Your task to perform on an android device: What's the weather? Image 0: 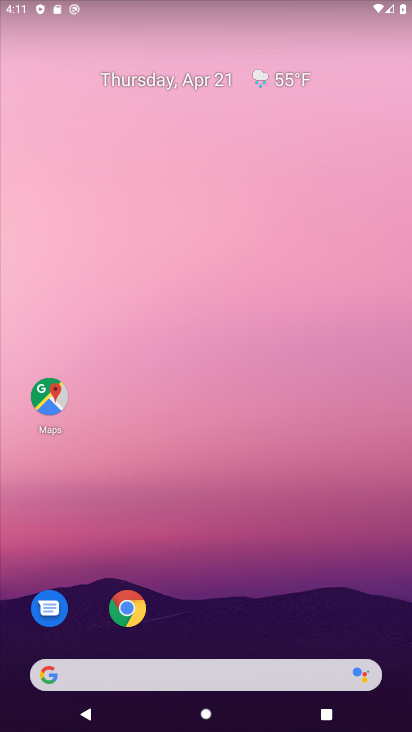
Step 0: click (127, 610)
Your task to perform on an android device: What's the weather? Image 1: 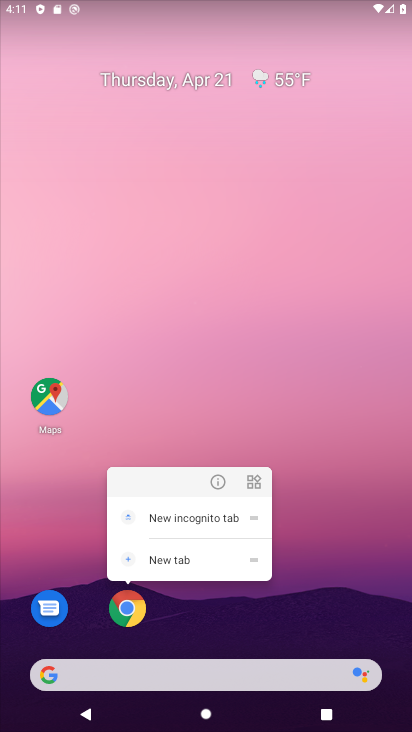
Step 1: click (129, 608)
Your task to perform on an android device: What's the weather? Image 2: 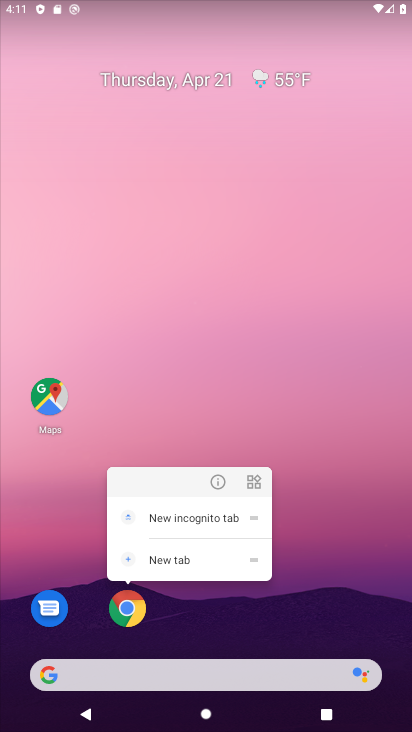
Step 2: click (130, 607)
Your task to perform on an android device: What's the weather? Image 3: 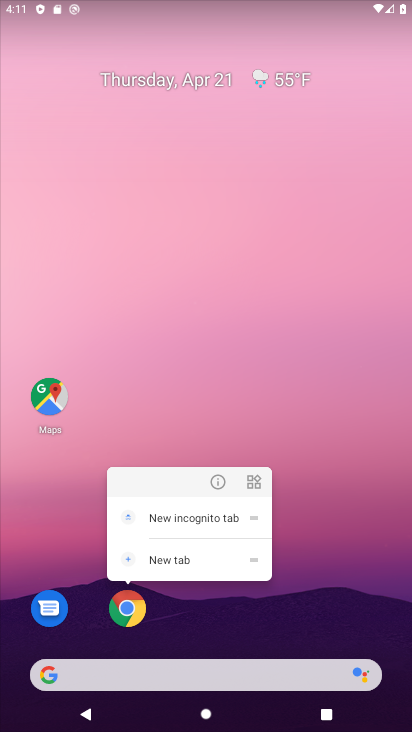
Step 3: click (130, 607)
Your task to perform on an android device: What's the weather? Image 4: 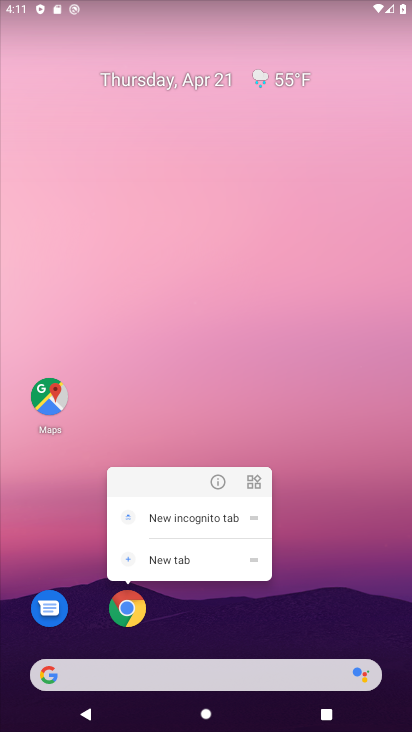
Step 4: click (130, 607)
Your task to perform on an android device: What's the weather? Image 5: 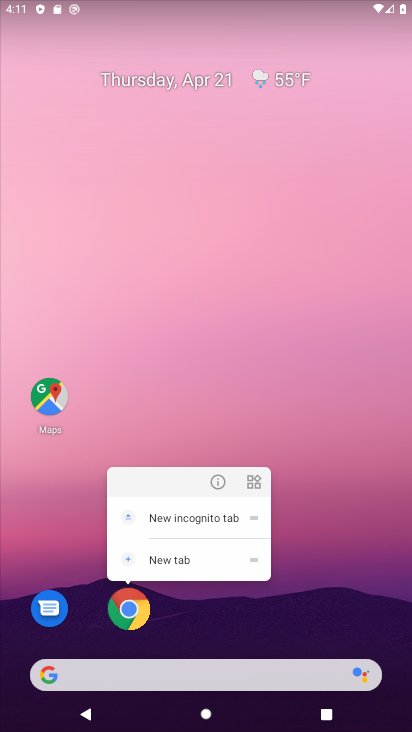
Step 5: click (149, 684)
Your task to perform on an android device: What's the weather? Image 6: 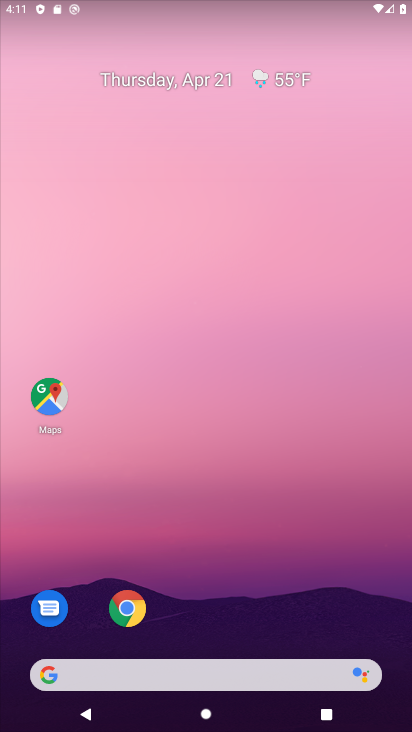
Step 6: click (133, 621)
Your task to perform on an android device: What's the weather? Image 7: 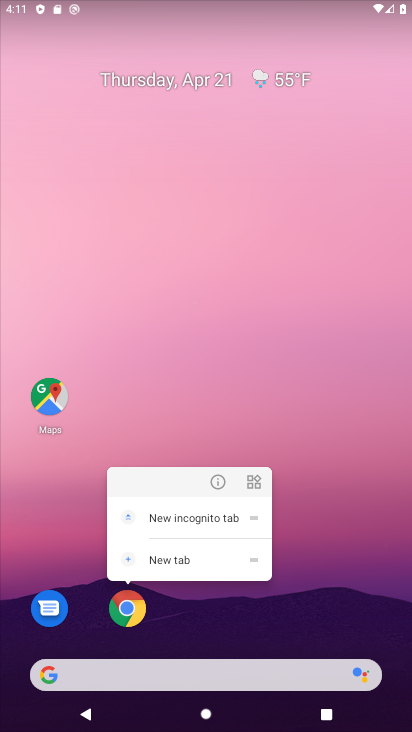
Step 7: click (132, 620)
Your task to perform on an android device: What's the weather? Image 8: 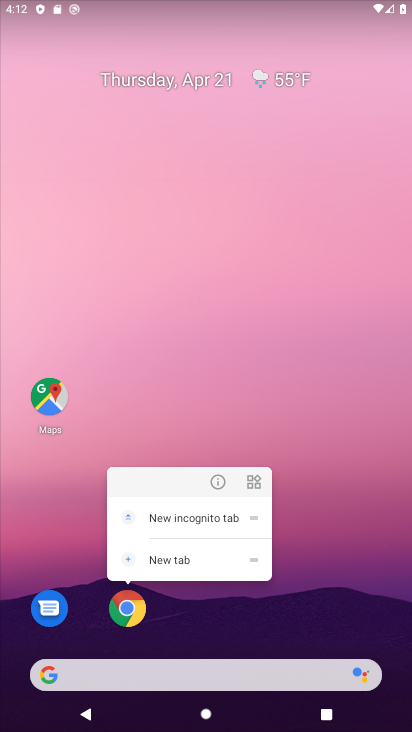
Step 8: click (196, 594)
Your task to perform on an android device: What's the weather? Image 9: 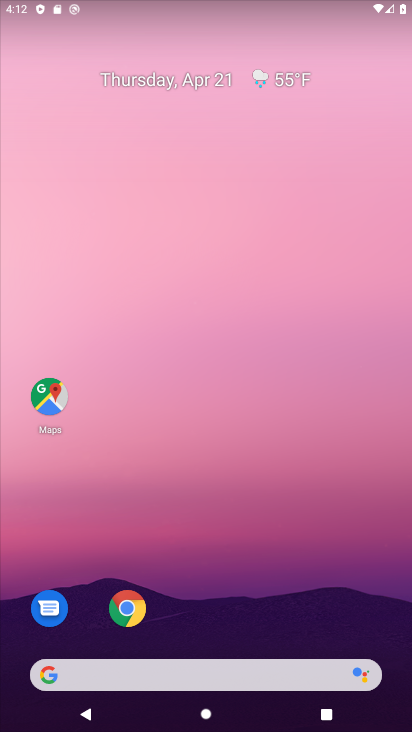
Step 9: click (129, 612)
Your task to perform on an android device: What's the weather? Image 10: 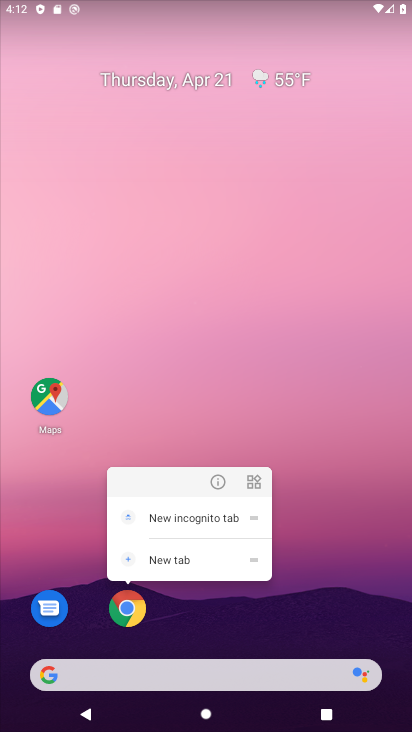
Step 10: click (130, 611)
Your task to perform on an android device: What's the weather? Image 11: 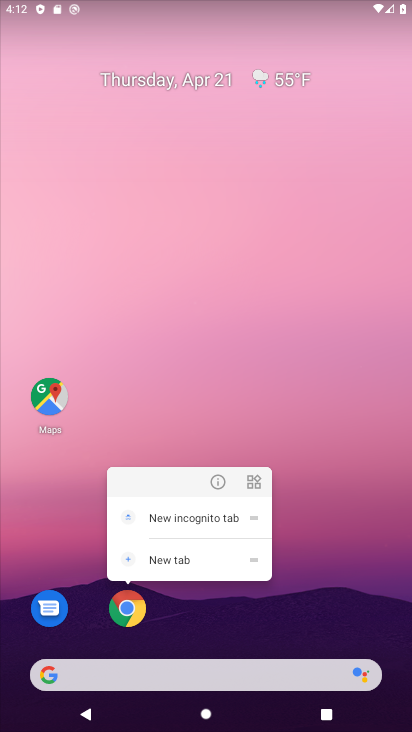
Step 11: click (130, 611)
Your task to perform on an android device: What's the weather? Image 12: 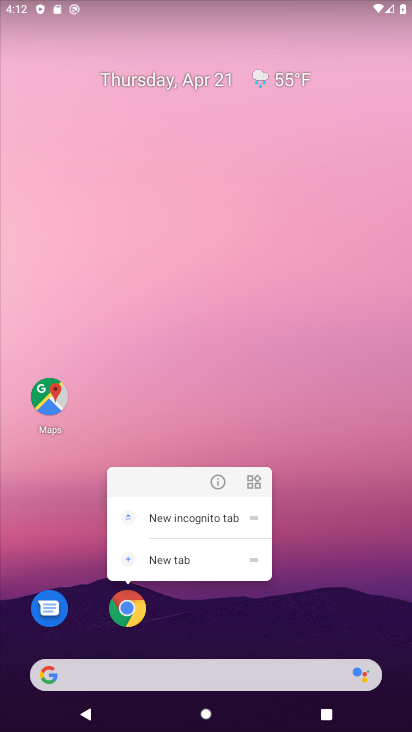
Step 12: click (129, 610)
Your task to perform on an android device: What's the weather? Image 13: 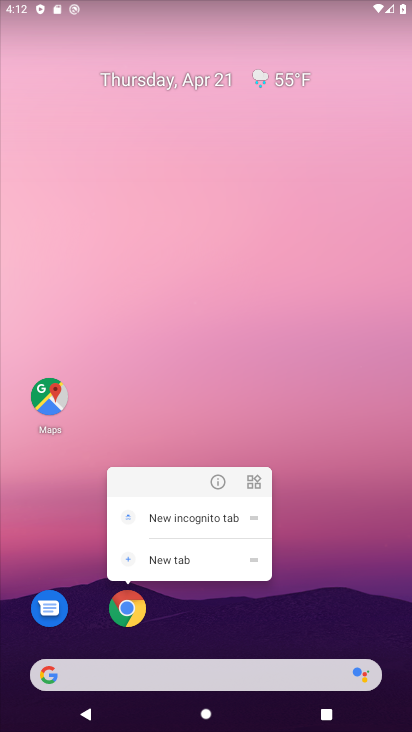
Step 13: click (241, 612)
Your task to perform on an android device: What's the weather? Image 14: 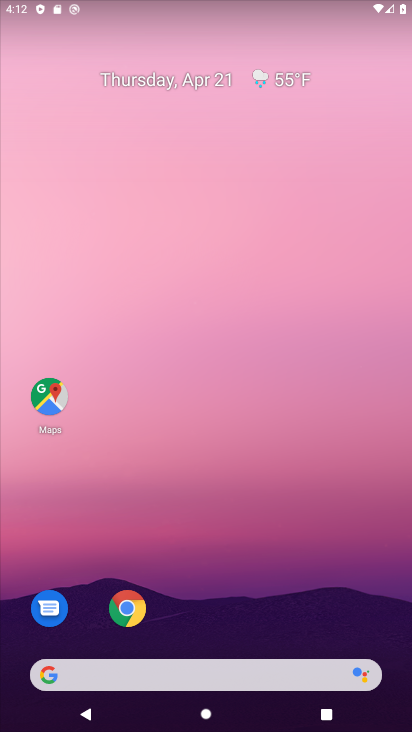
Step 14: drag from (242, 613) to (344, 4)
Your task to perform on an android device: What's the weather? Image 15: 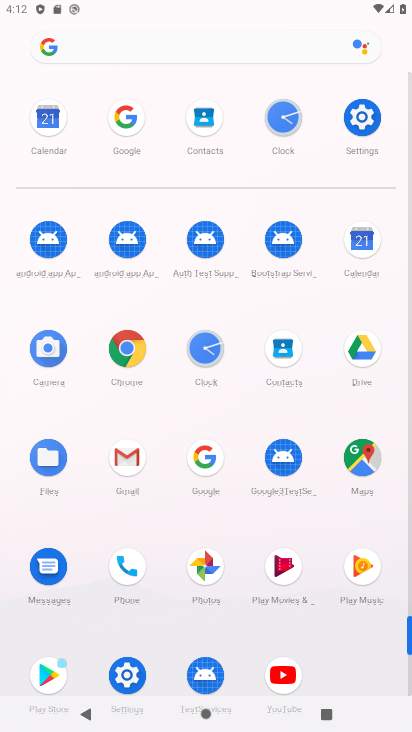
Step 15: click (133, 350)
Your task to perform on an android device: What's the weather? Image 16: 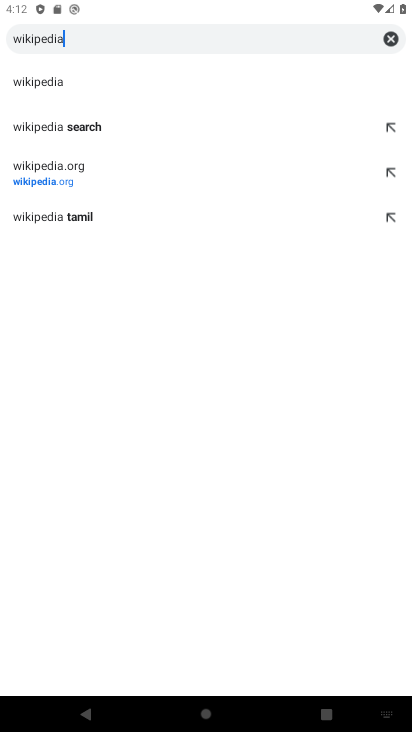
Step 16: click (390, 38)
Your task to perform on an android device: What's the weather? Image 17: 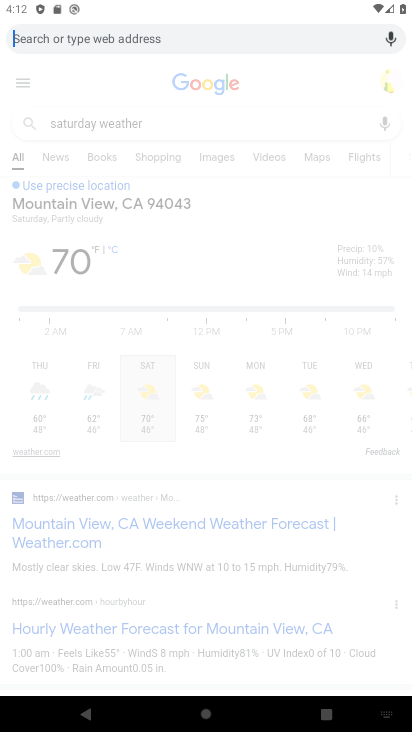
Step 17: type "weather"
Your task to perform on an android device: What's the weather? Image 18: 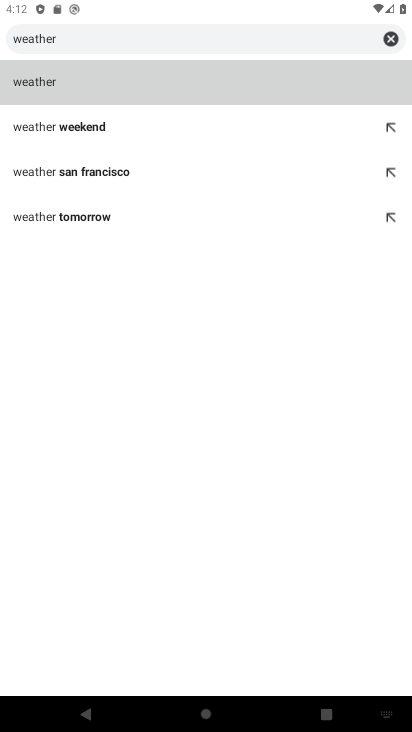
Step 18: click (246, 92)
Your task to perform on an android device: What's the weather? Image 19: 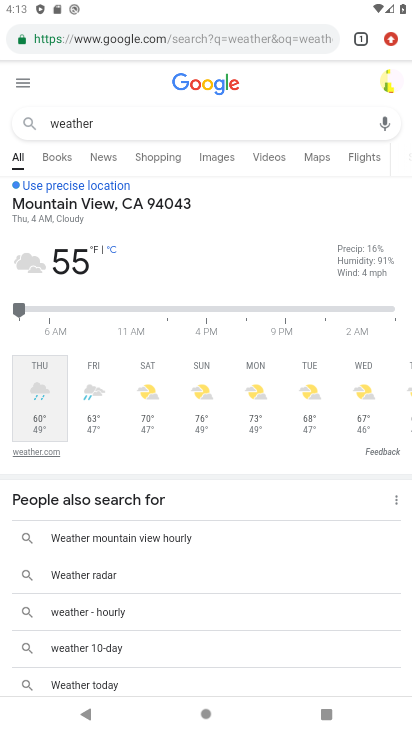
Step 19: task complete